Your task to perform on an android device: Open wifi settings Image 0: 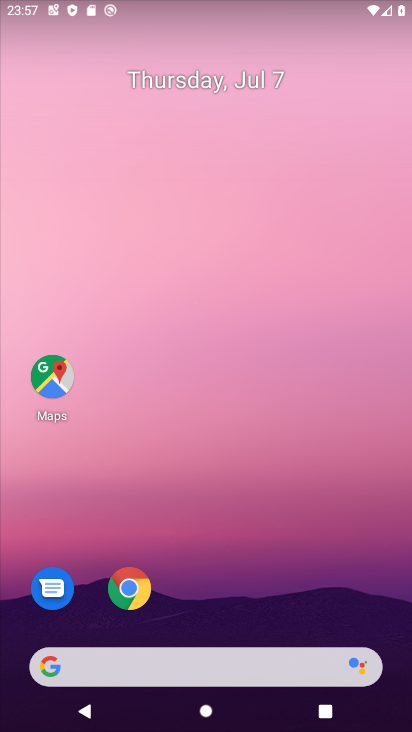
Step 0: drag from (183, 614) to (229, 273)
Your task to perform on an android device: Open wifi settings Image 1: 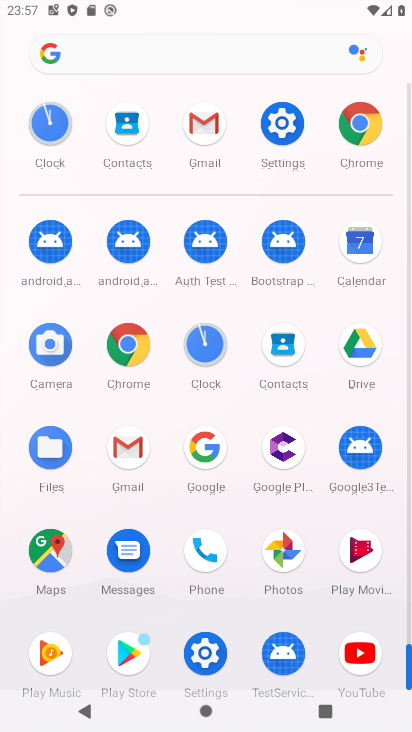
Step 1: click (281, 124)
Your task to perform on an android device: Open wifi settings Image 2: 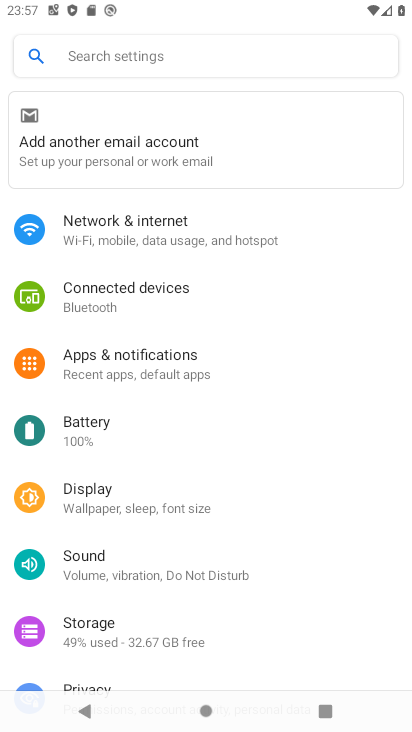
Step 2: drag from (115, 263) to (166, 461)
Your task to perform on an android device: Open wifi settings Image 3: 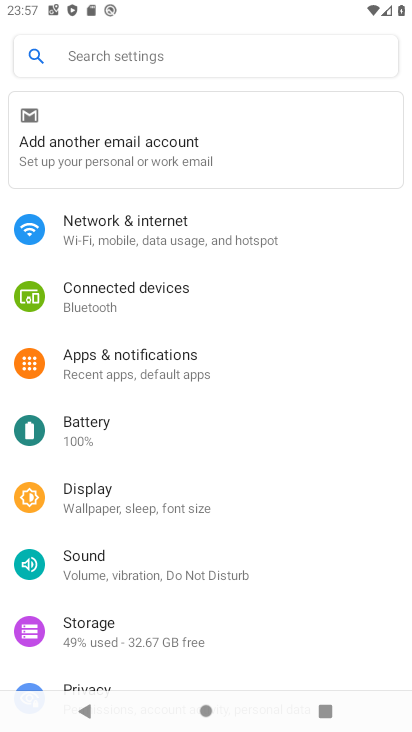
Step 3: click (175, 219)
Your task to perform on an android device: Open wifi settings Image 4: 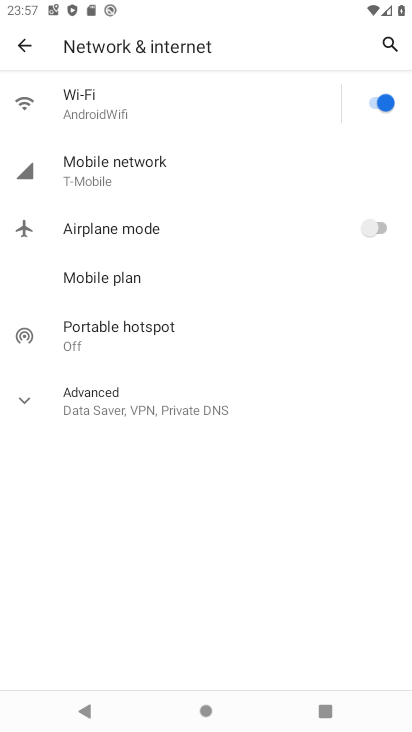
Step 4: click (101, 96)
Your task to perform on an android device: Open wifi settings Image 5: 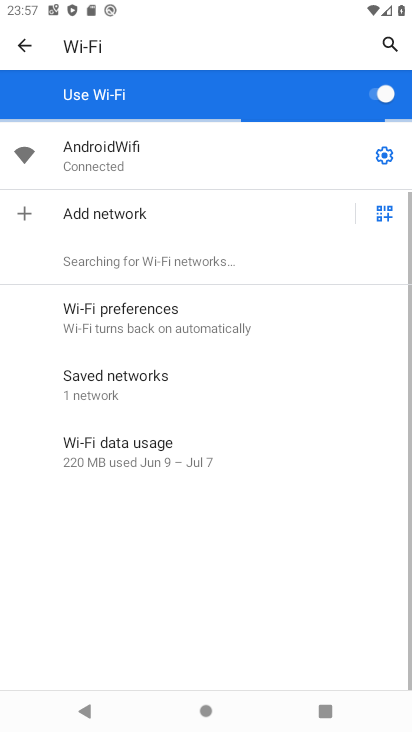
Step 5: drag from (203, 496) to (233, 134)
Your task to perform on an android device: Open wifi settings Image 6: 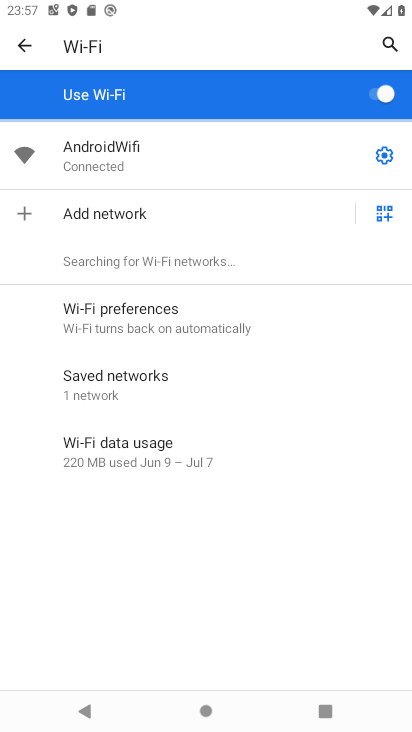
Step 6: drag from (185, 430) to (269, 136)
Your task to perform on an android device: Open wifi settings Image 7: 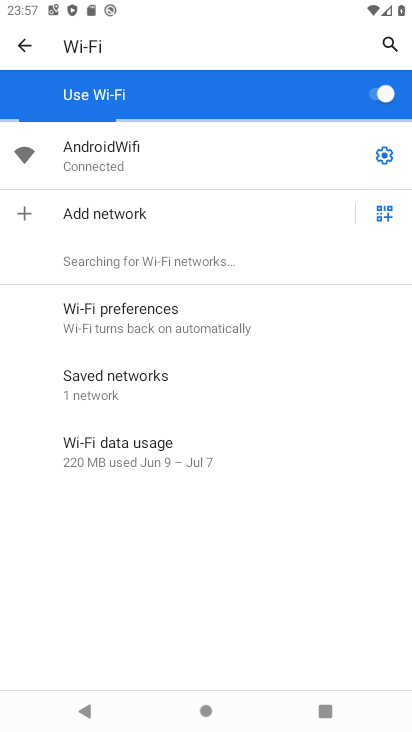
Step 7: drag from (154, 538) to (267, 58)
Your task to perform on an android device: Open wifi settings Image 8: 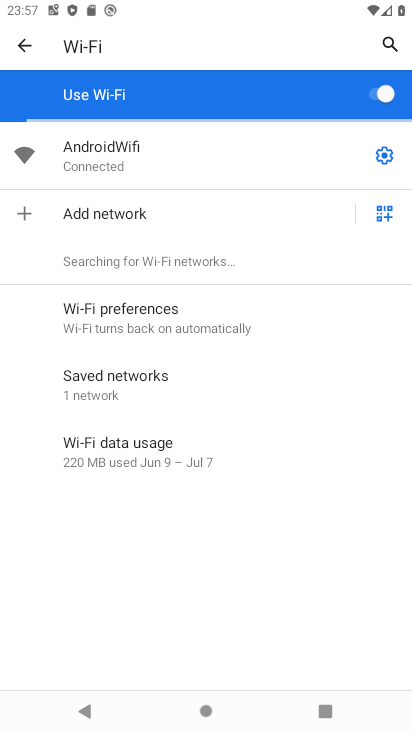
Step 8: drag from (186, 504) to (282, 7)
Your task to perform on an android device: Open wifi settings Image 9: 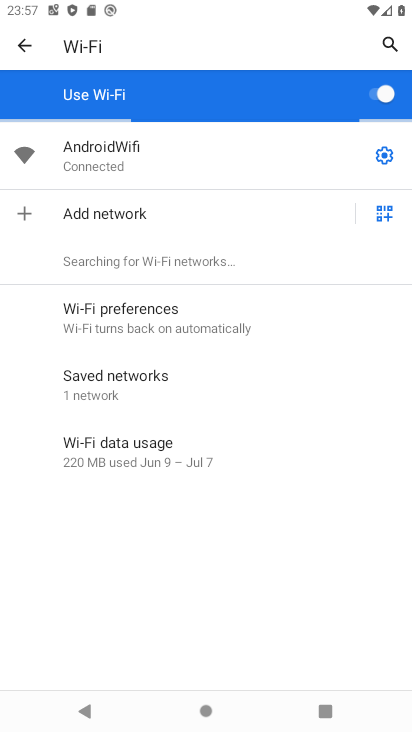
Step 9: click (394, 153)
Your task to perform on an android device: Open wifi settings Image 10: 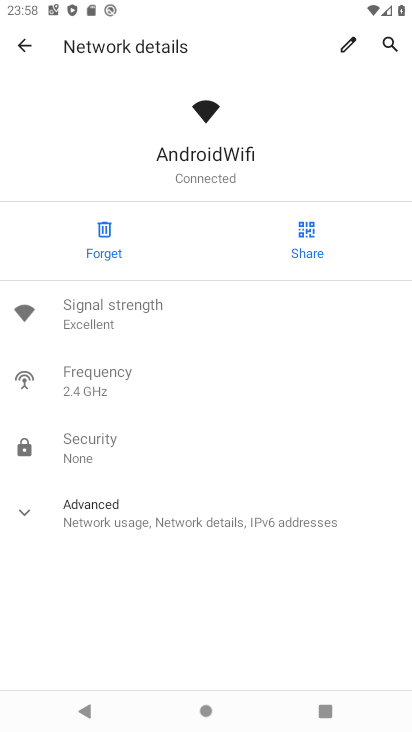
Step 10: drag from (171, 557) to (255, 39)
Your task to perform on an android device: Open wifi settings Image 11: 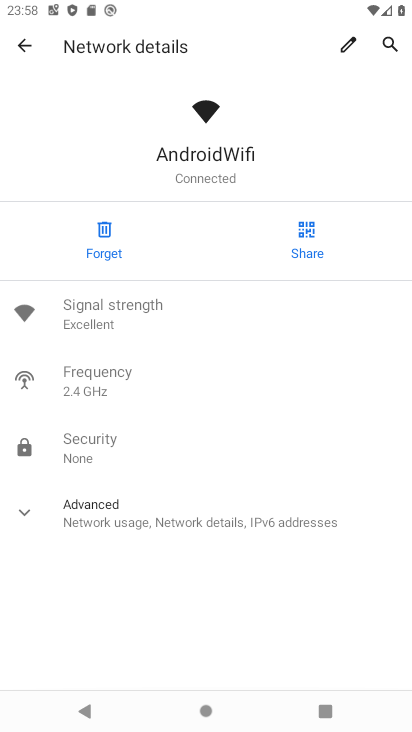
Step 11: drag from (243, 209) to (254, 642)
Your task to perform on an android device: Open wifi settings Image 12: 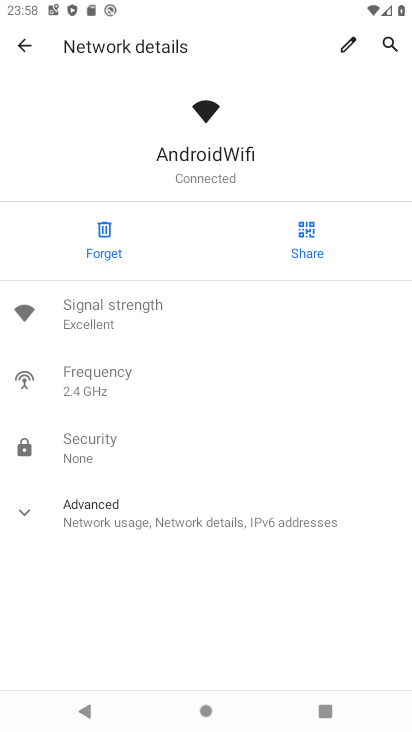
Step 12: drag from (230, 96) to (253, 554)
Your task to perform on an android device: Open wifi settings Image 13: 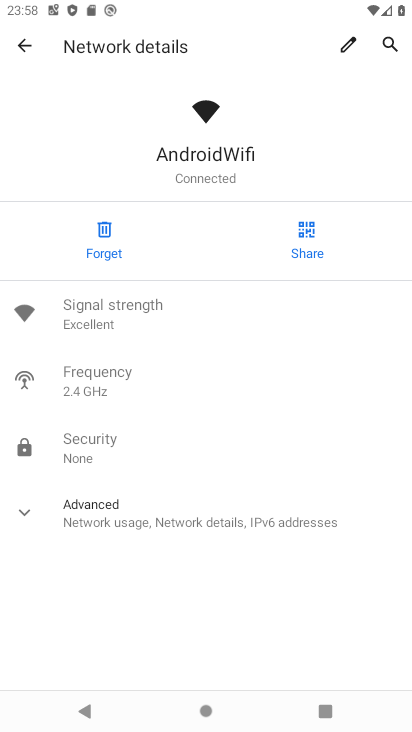
Step 13: drag from (197, 97) to (277, 442)
Your task to perform on an android device: Open wifi settings Image 14: 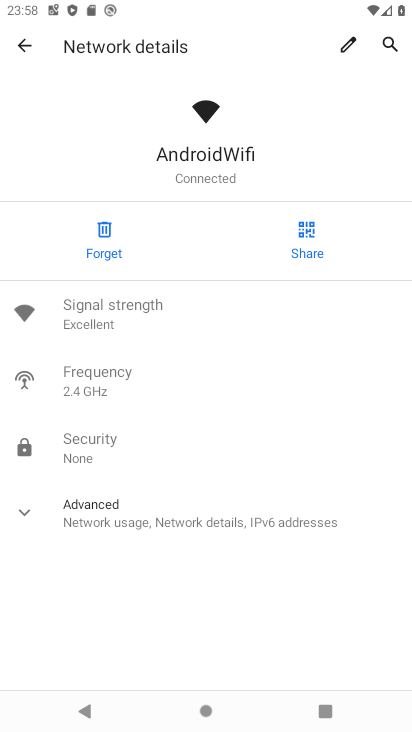
Step 14: drag from (200, 135) to (296, 431)
Your task to perform on an android device: Open wifi settings Image 15: 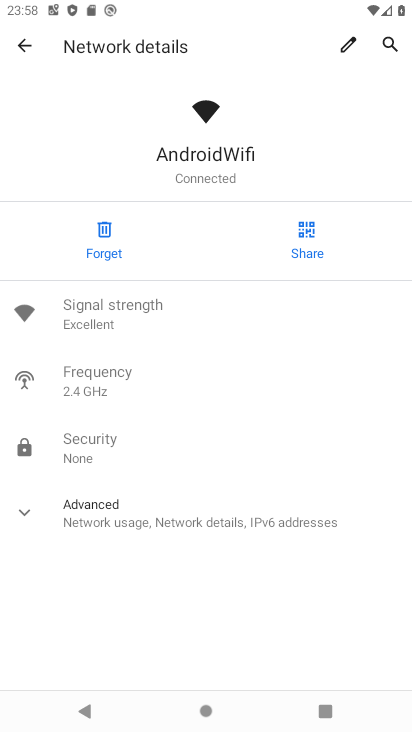
Step 15: drag from (211, 616) to (198, 203)
Your task to perform on an android device: Open wifi settings Image 16: 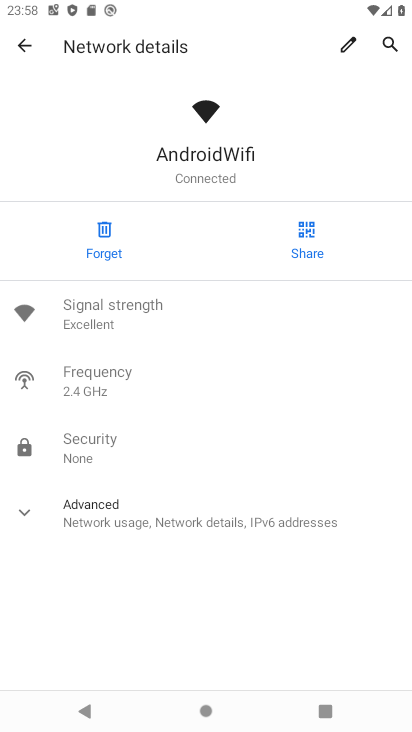
Step 16: drag from (149, 614) to (149, 312)
Your task to perform on an android device: Open wifi settings Image 17: 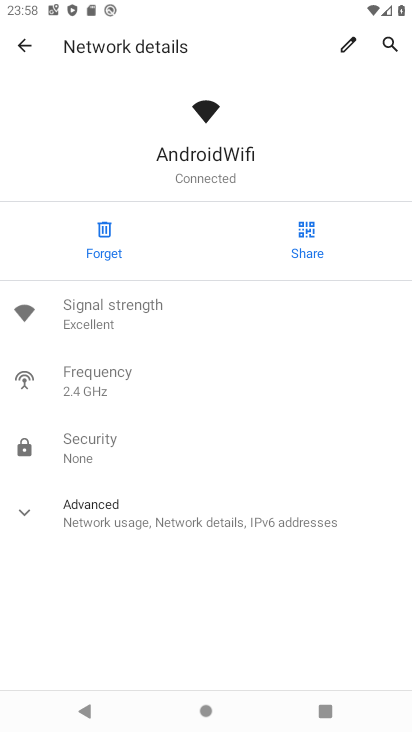
Step 17: drag from (206, 605) to (240, 299)
Your task to perform on an android device: Open wifi settings Image 18: 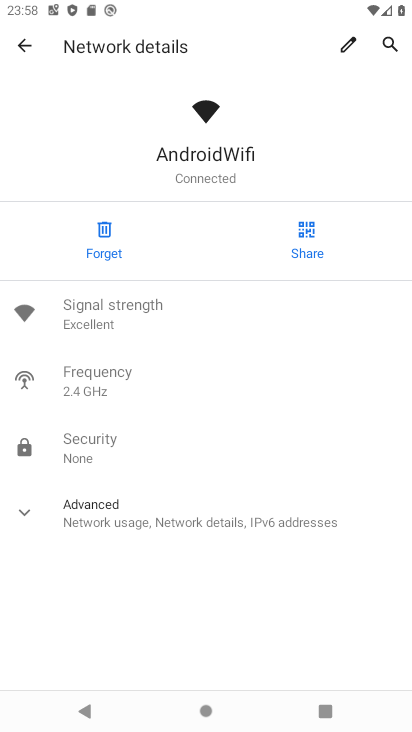
Step 18: click (18, 40)
Your task to perform on an android device: Open wifi settings Image 19: 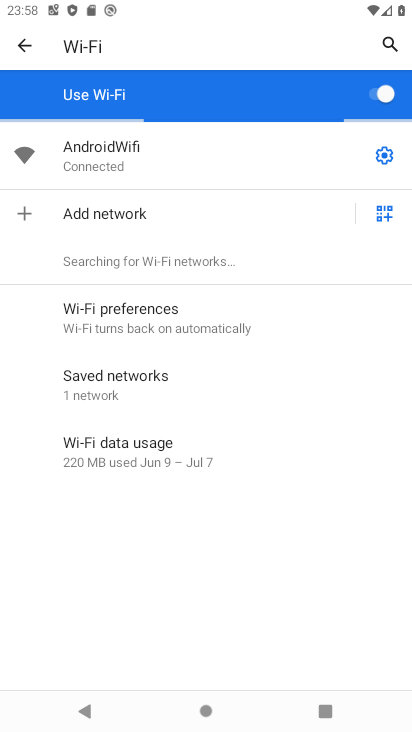
Step 19: drag from (234, 504) to (222, 225)
Your task to perform on an android device: Open wifi settings Image 20: 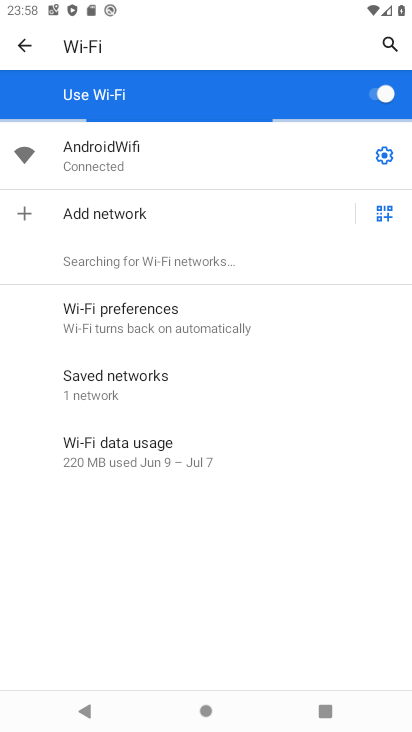
Step 20: drag from (245, 468) to (276, 246)
Your task to perform on an android device: Open wifi settings Image 21: 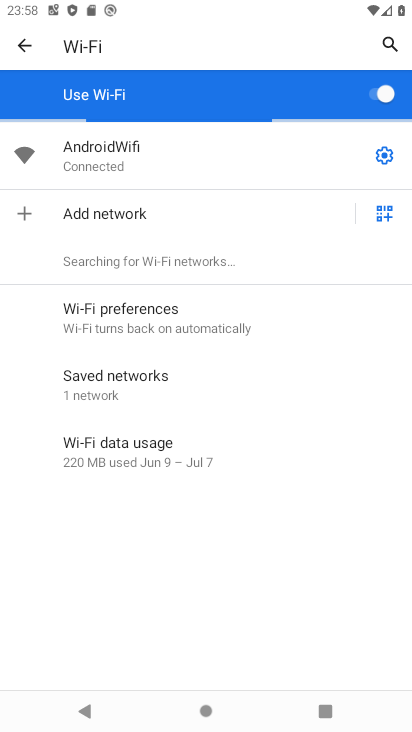
Step 21: click (387, 166)
Your task to perform on an android device: Open wifi settings Image 22: 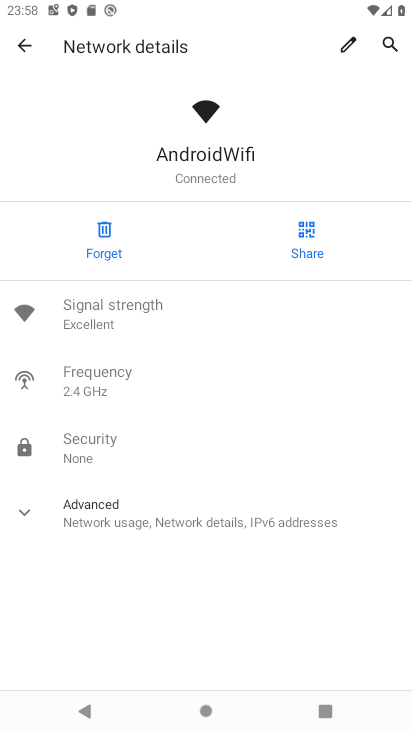
Step 22: task complete